Your task to perform on an android device: Do I have any events tomorrow? Image 0: 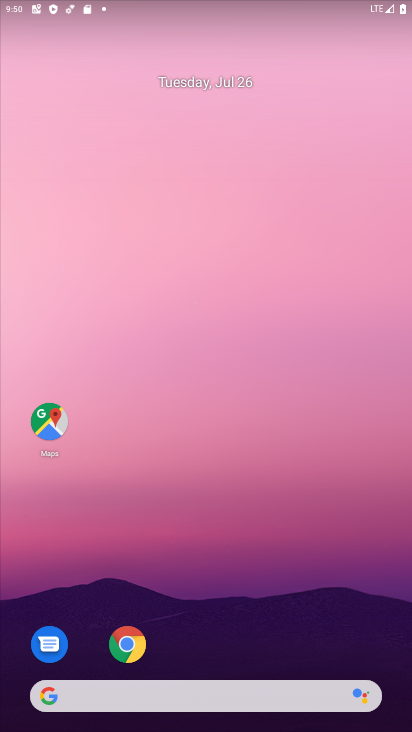
Step 0: drag from (298, 607) to (293, 7)
Your task to perform on an android device: Do I have any events tomorrow? Image 1: 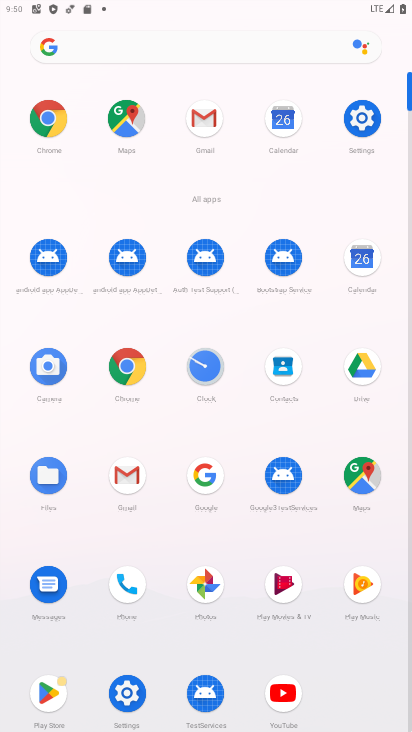
Step 1: click (283, 122)
Your task to perform on an android device: Do I have any events tomorrow? Image 2: 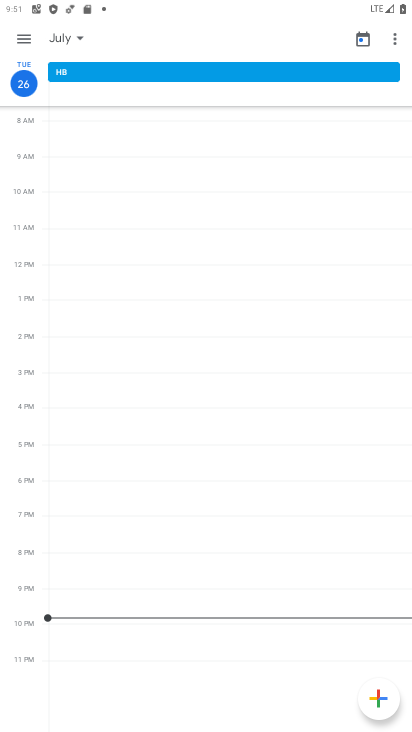
Step 2: click (83, 38)
Your task to perform on an android device: Do I have any events tomorrow? Image 3: 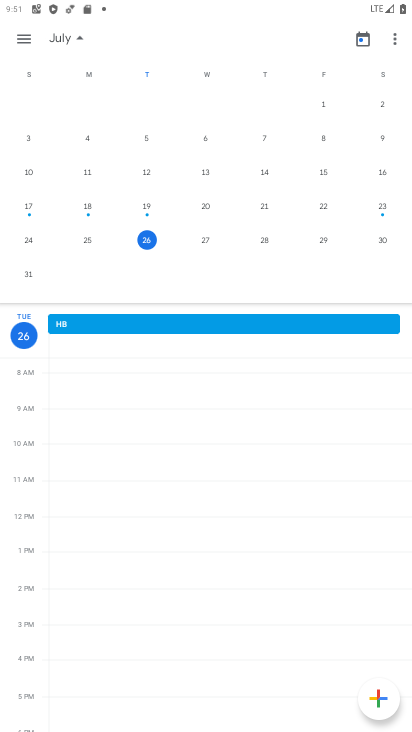
Step 3: click (203, 243)
Your task to perform on an android device: Do I have any events tomorrow? Image 4: 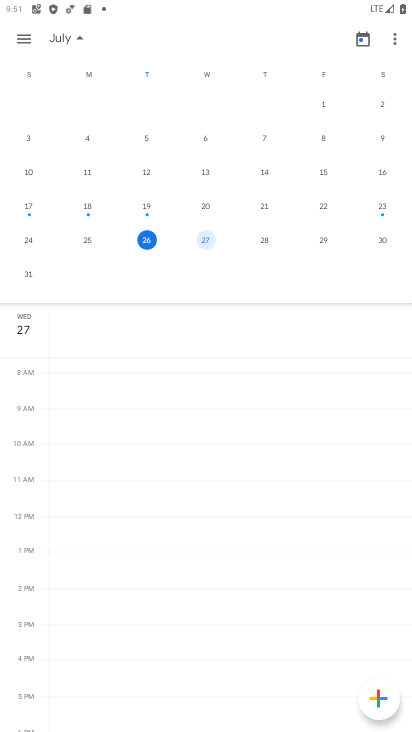
Step 4: task complete